Your task to perform on an android device: turn off data saver in the chrome app Image 0: 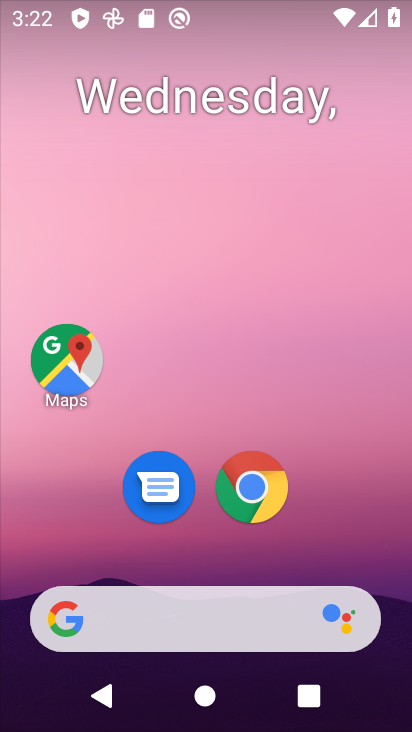
Step 0: drag from (382, 554) to (383, 149)
Your task to perform on an android device: turn off data saver in the chrome app Image 1: 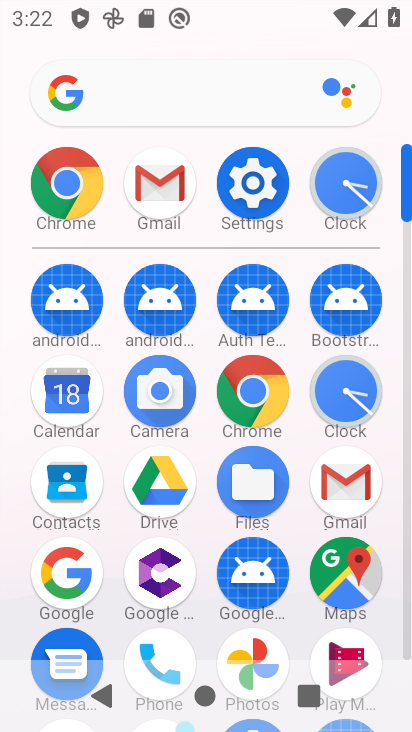
Step 1: click (263, 392)
Your task to perform on an android device: turn off data saver in the chrome app Image 2: 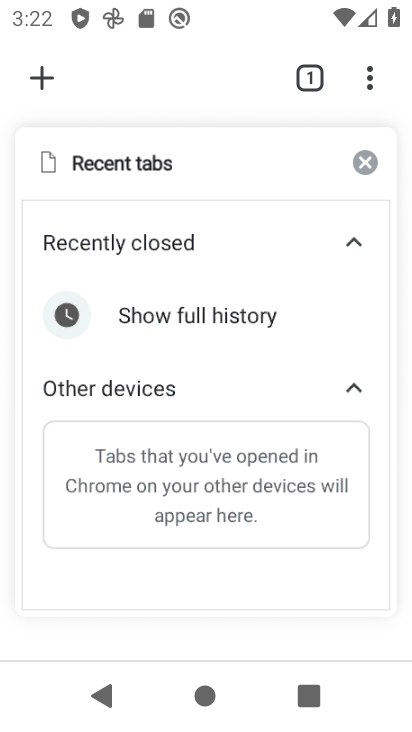
Step 2: press back button
Your task to perform on an android device: turn off data saver in the chrome app Image 3: 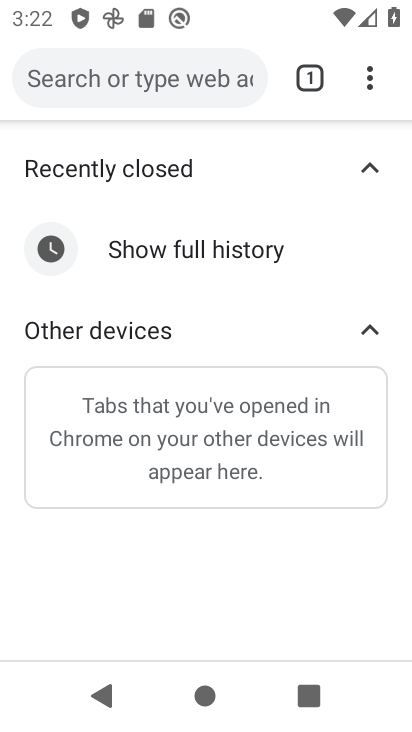
Step 3: click (369, 87)
Your task to perform on an android device: turn off data saver in the chrome app Image 4: 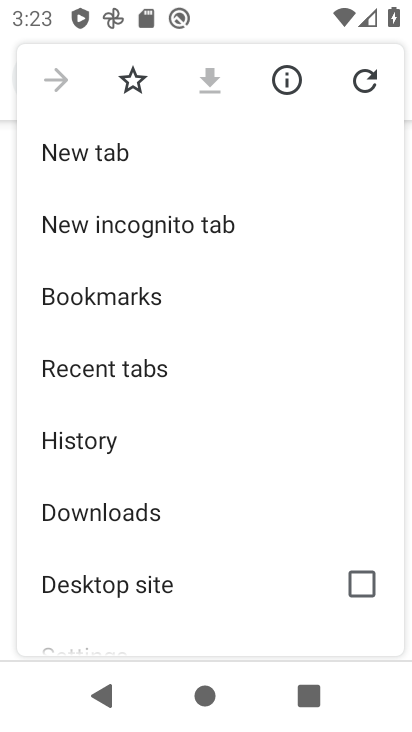
Step 4: drag from (288, 393) to (303, 255)
Your task to perform on an android device: turn off data saver in the chrome app Image 5: 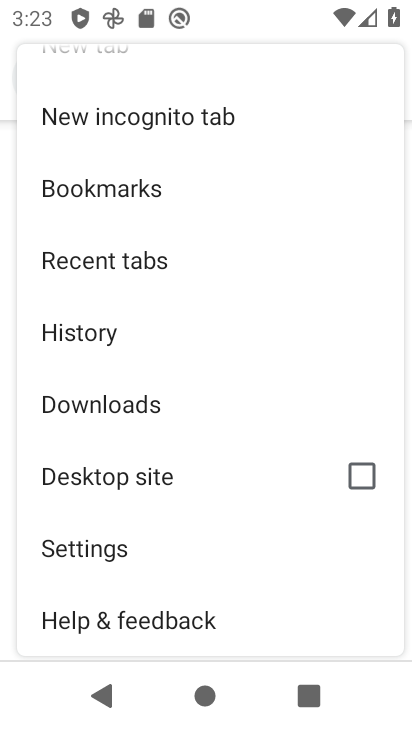
Step 5: drag from (313, 420) to (316, 220)
Your task to perform on an android device: turn off data saver in the chrome app Image 6: 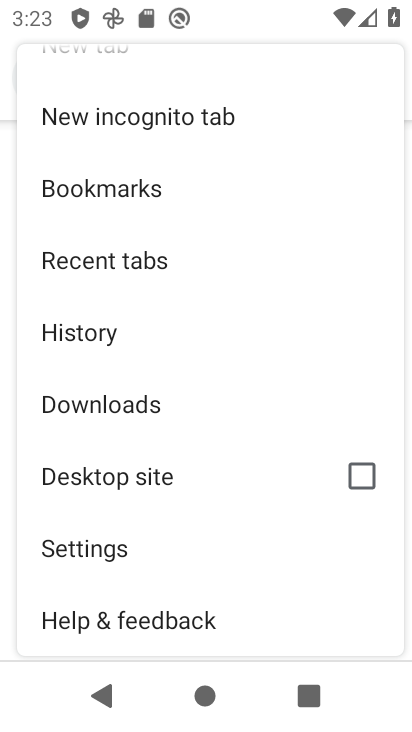
Step 6: drag from (274, 466) to (284, 246)
Your task to perform on an android device: turn off data saver in the chrome app Image 7: 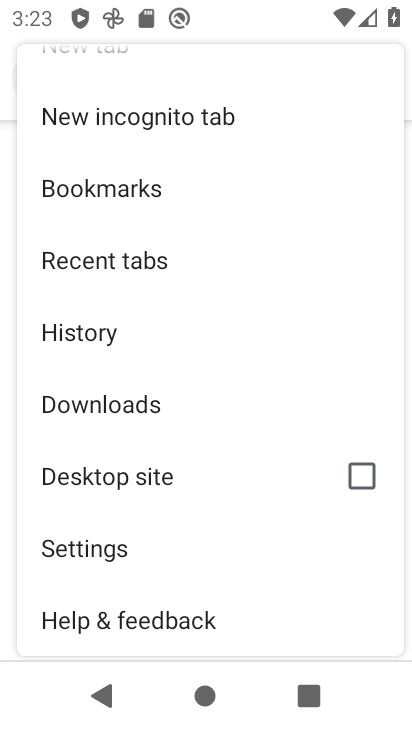
Step 7: click (111, 554)
Your task to perform on an android device: turn off data saver in the chrome app Image 8: 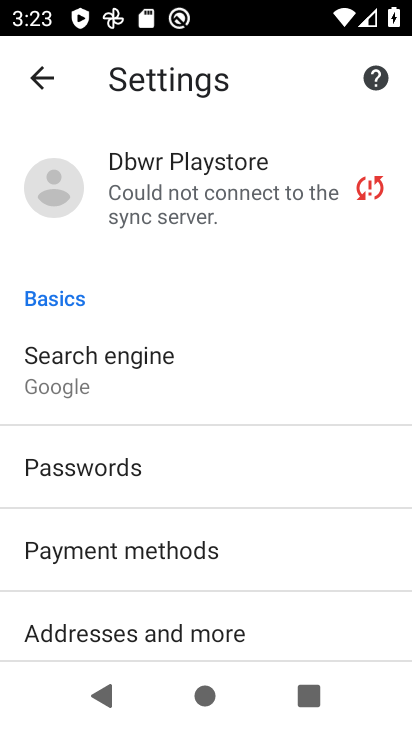
Step 8: drag from (295, 559) to (295, 421)
Your task to perform on an android device: turn off data saver in the chrome app Image 9: 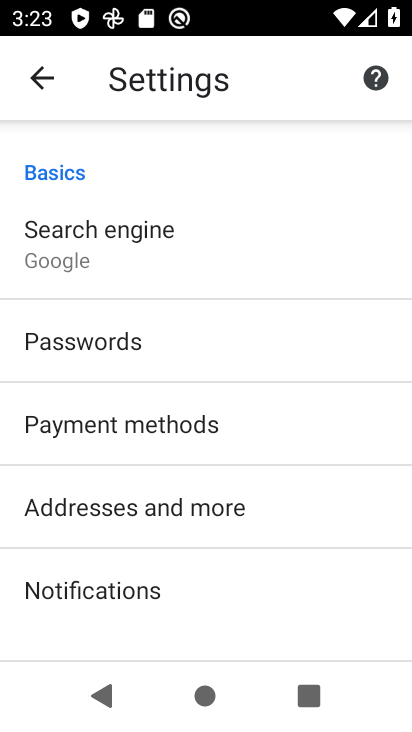
Step 9: drag from (285, 579) to (310, 415)
Your task to perform on an android device: turn off data saver in the chrome app Image 10: 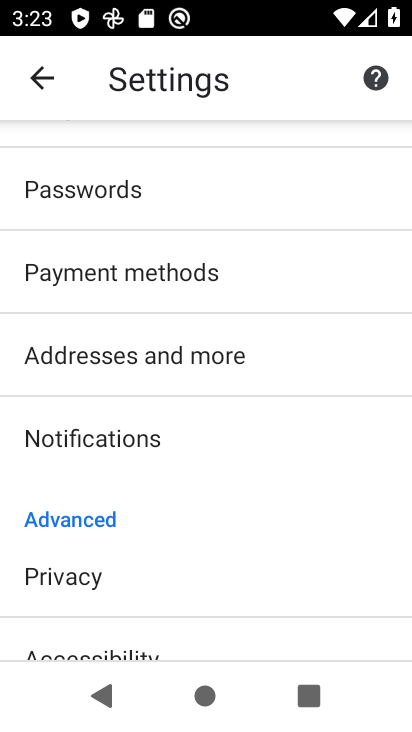
Step 10: drag from (294, 470) to (324, 293)
Your task to perform on an android device: turn off data saver in the chrome app Image 11: 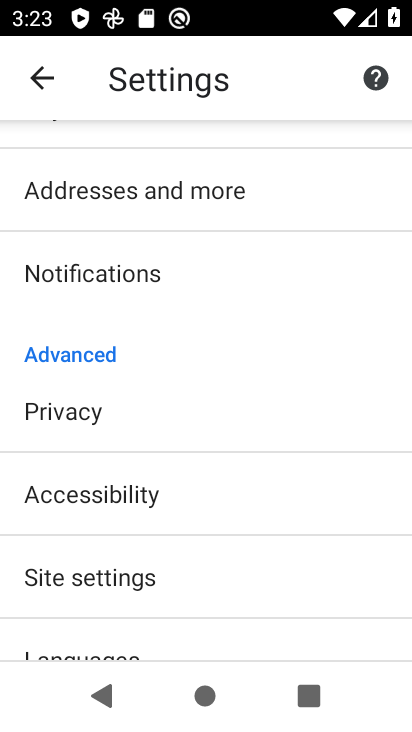
Step 11: drag from (306, 536) to (314, 381)
Your task to perform on an android device: turn off data saver in the chrome app Image 12: 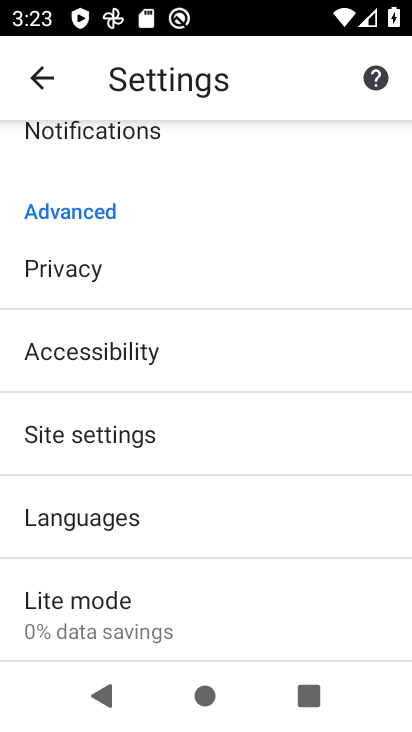
Step 12: drag from (295, 560) to (309, 435)
Your task to perform on an android device: turn off data saver in the chrome app Image 13: 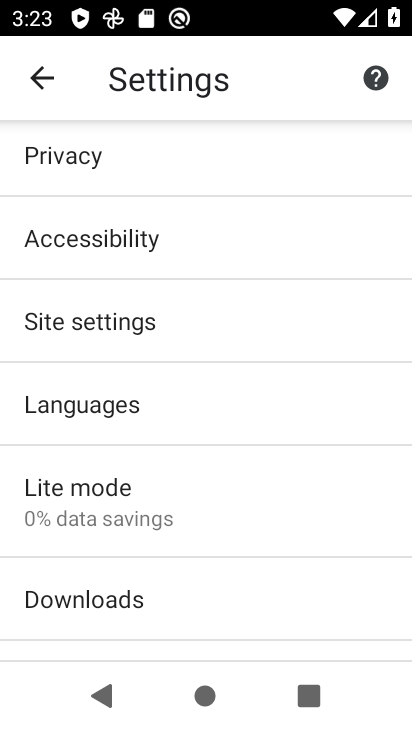
Step 13: drag from (302, 558) to (299, 351)
Your task to perform on an android device: turn off data saver in the chrome app Image 14: 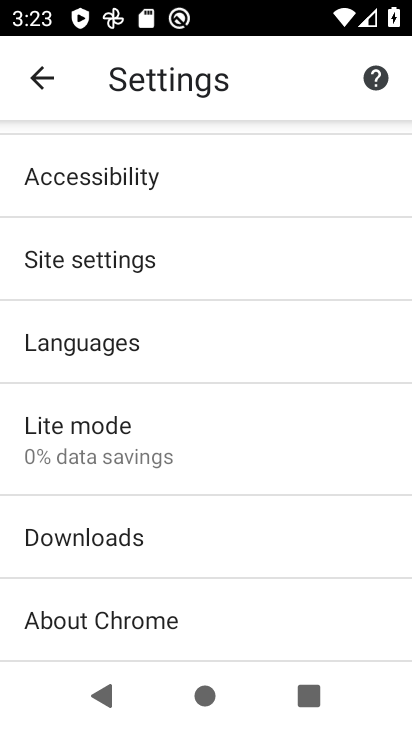
Step 14: drag from (295, 546) to (311, 338)
Your task to perform on an android device: turn off data saver in the chrome app Image 15: 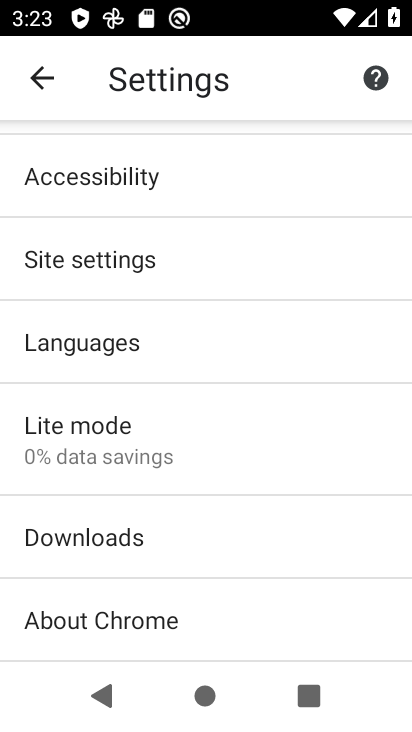
Step 15: click (261, 430)
Your task to perform on an android device: turn off data saver in the chrome app Image 16: 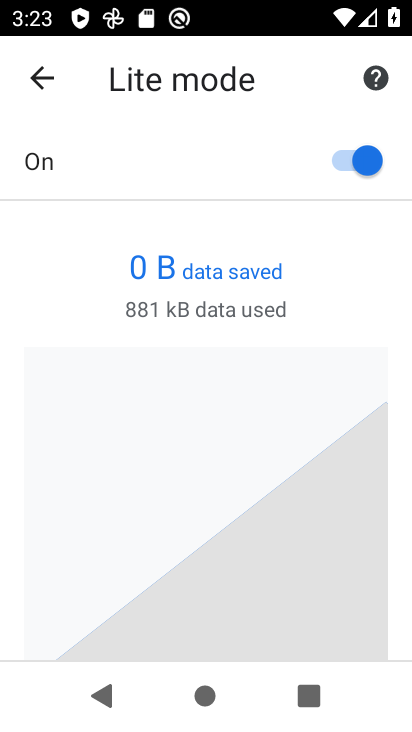
Step 16: click (374, 178)
Your task to perform on an android device: turn off data saver in the chrome app Image 17: 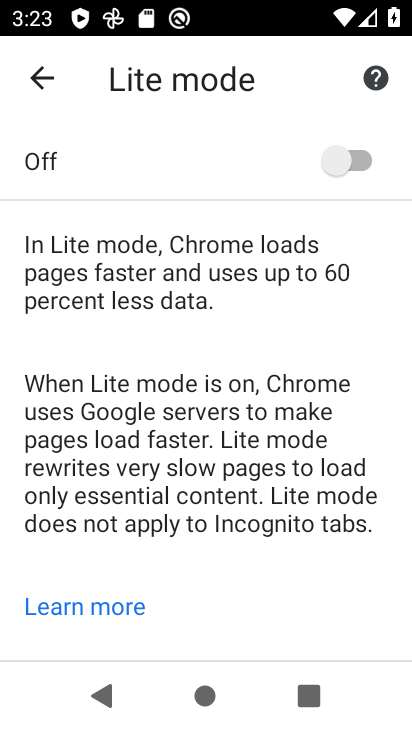
Step 17: task complete